Your task to perform on an android device: turn on translation in the chrome app Image 0: 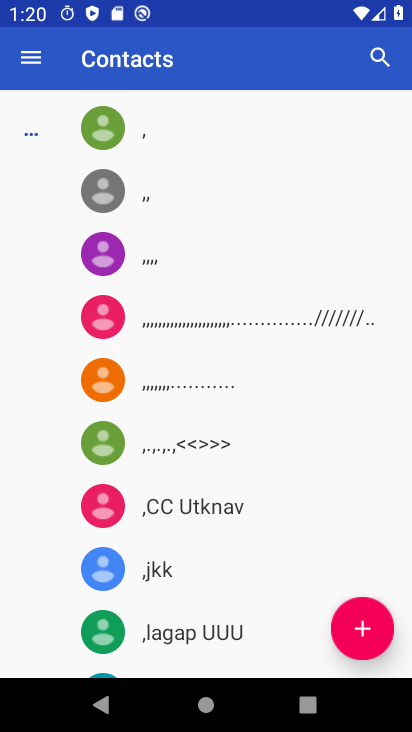
Step 0: press home button
Your task to perform on an android device: turn on translation in the chrome app Image 1: 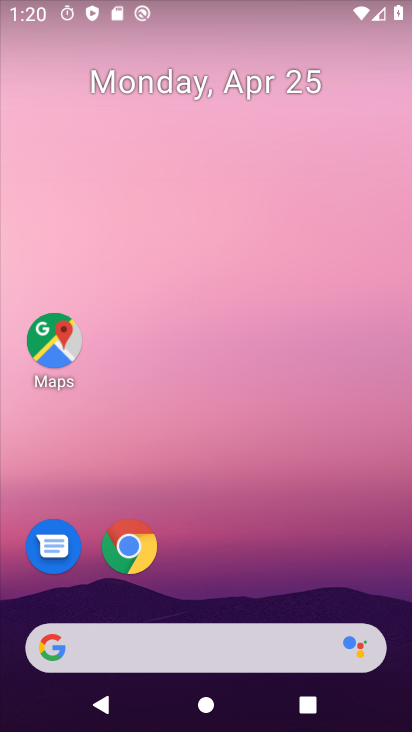
Step 1: drag from (202, 587) to (335, 3)
Your task to perform on an android device: turn on translation in the chrome app Image 2: 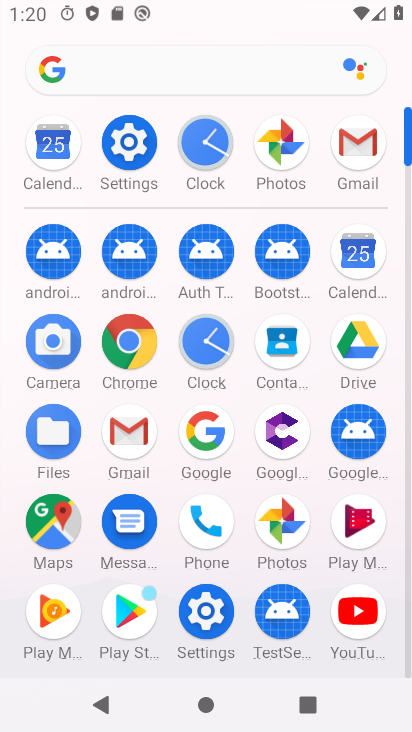
Step 2: click (119, 328)
Your task to perform on an android device: turn on translation in the chrome app Image 3: 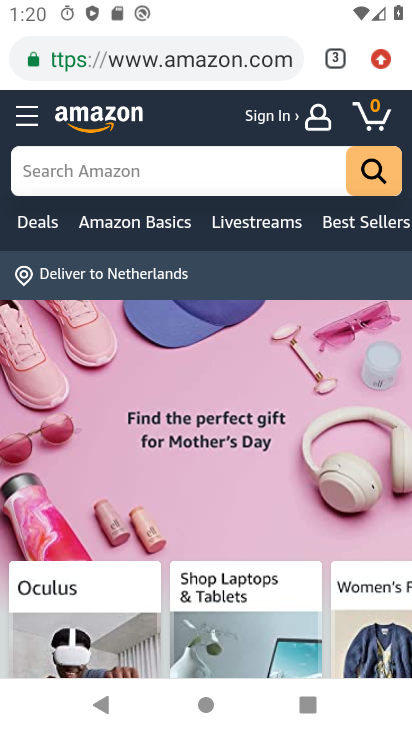
Step 3: drag from (374, 57) to (172, 581)
Your task to perform on an android device: turn on translation in the chrome app Image 4: 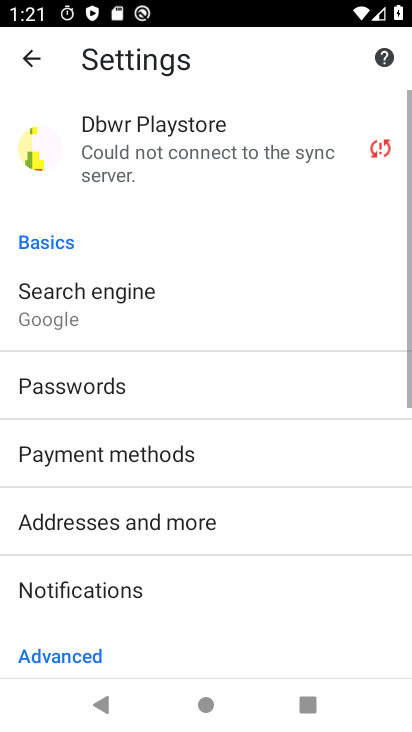
Step 4: drag from (169, 595) to (123, 155)
Your task to perform on an android device: turn on translation in the chrome app Image 5: 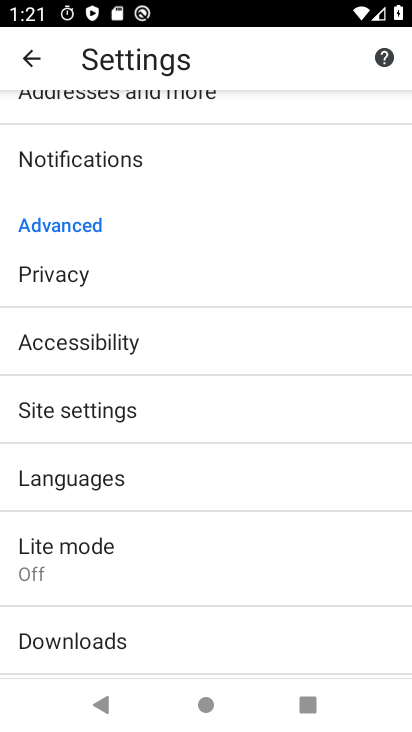
Step 5: drag from (75, 522) to (80, 434)
Your task to perform on an android device: turn on translation in the chrome app Image 6: 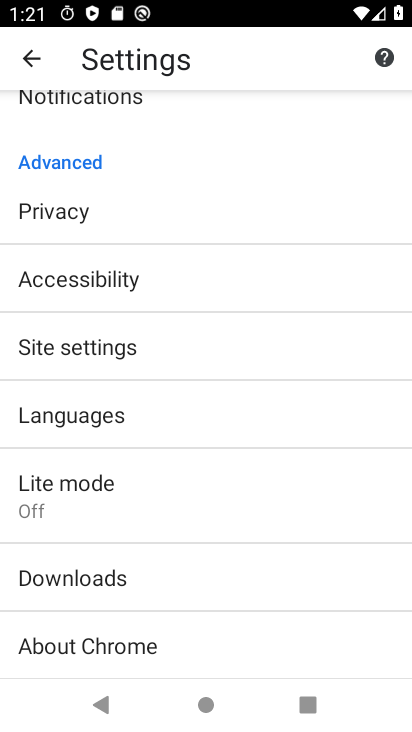
Step 6: click (85, 410)
Your task to perform on an android device: turn on translation in the chrome app Image 7: 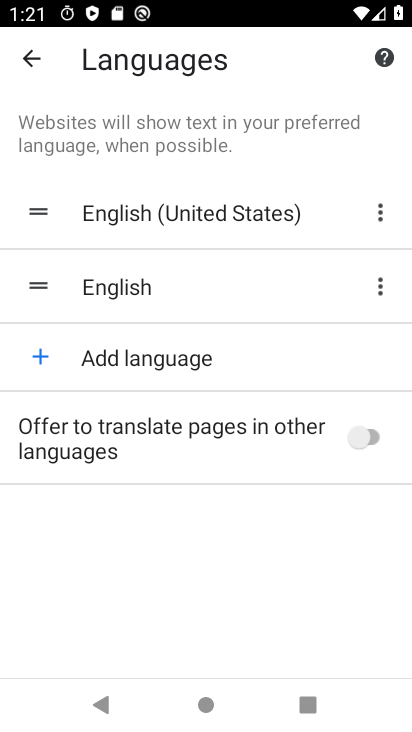
Step 7: click (351, 440)
Your task to perform on an android device: turn on translation in the chrome app Image 8: 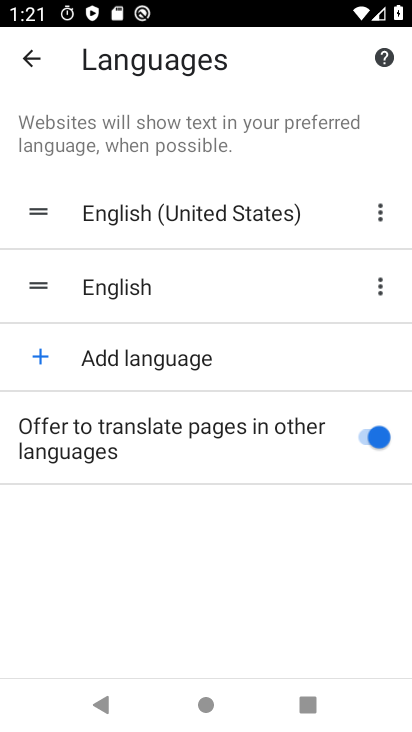
Step 8: task complete